Your task to perform on an android device: change the clock display to analog Image 0: 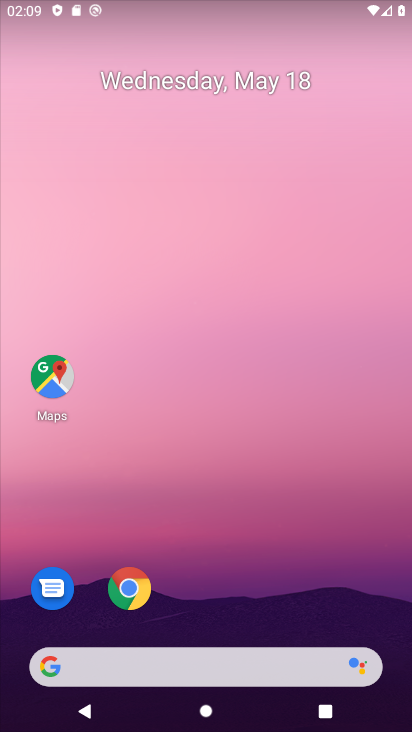
Step 0: drag from (60, 543) to (285, 171)
Your task to perform on an android device: change the clock display to analog Image 1: 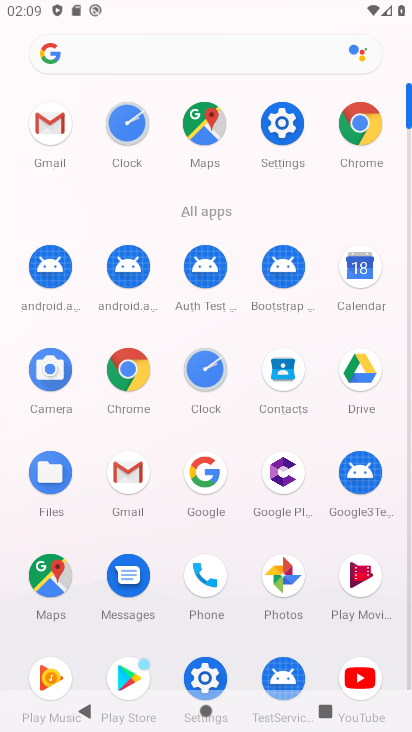
Step 1: click (211, 366)
Your task to perform on an android device: change the clock display to analog Image 2: 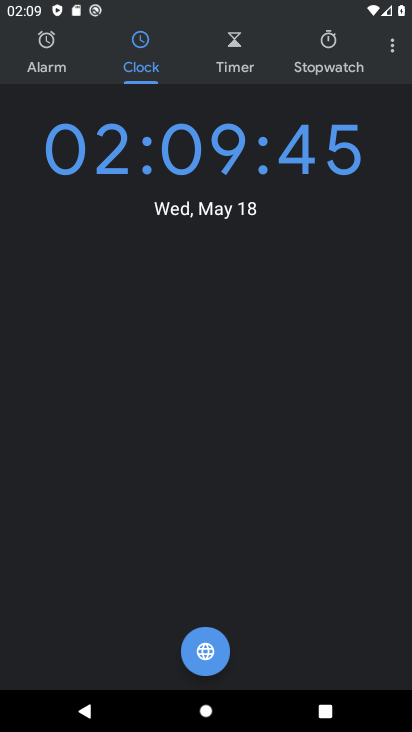
Step 2: click (396, 42)
Your task to perform on an android device: change the clock display to analog Image 3: 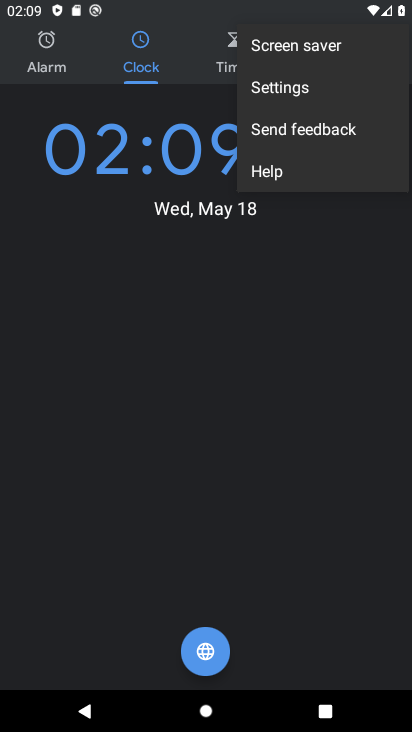
Step 3: click (315, 81)
Your task to perform on an android device: change the clock display to analog Image 4: 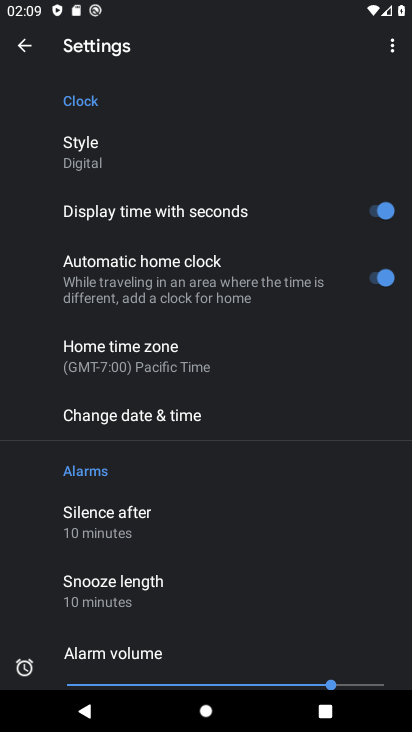
Step 4: click (167, 170)
Your task to perform on an android device: change the clock display to analog Image 5: 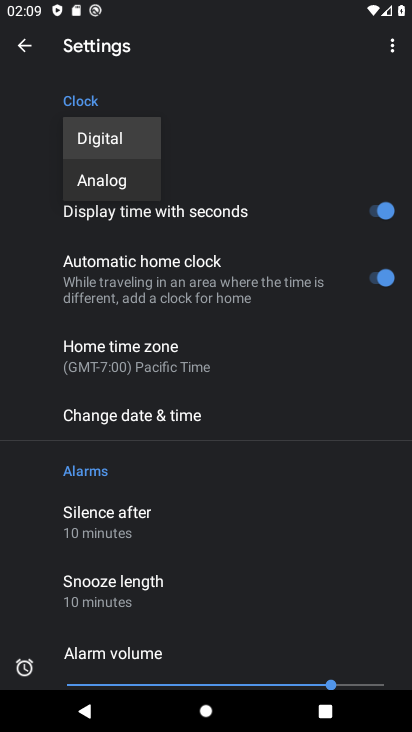
Step 5: click (133, 188)
Your task to perform on an android device: change the clock display to analog Image 6: 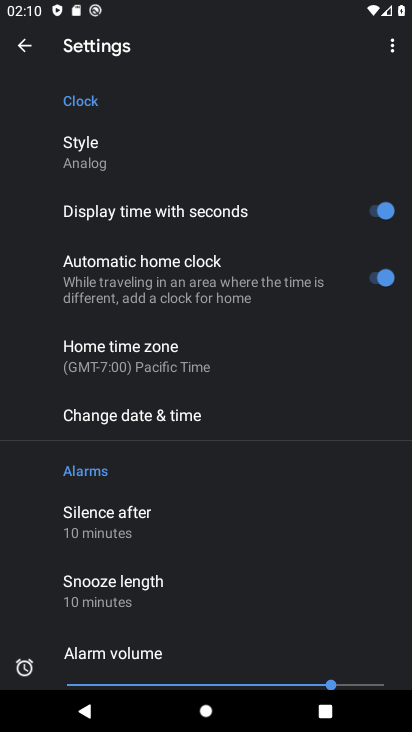
Step 6: task complete